Your task to perform on an android device: refresh tabs in the chrome app Image 0: 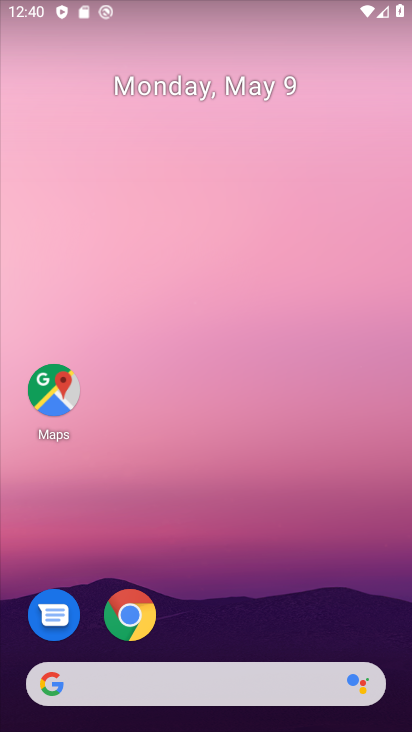
Step 0: click (129, 614)
Your task to perform on an android device: refresh tabs in the chrome app Image 1: 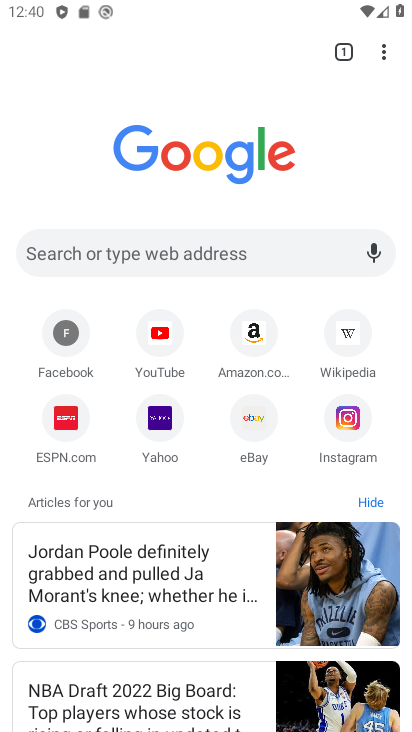
Step 1: click (385, 50)
Your task to perform on an android device: refresh tabs in the chrome app Image 2: 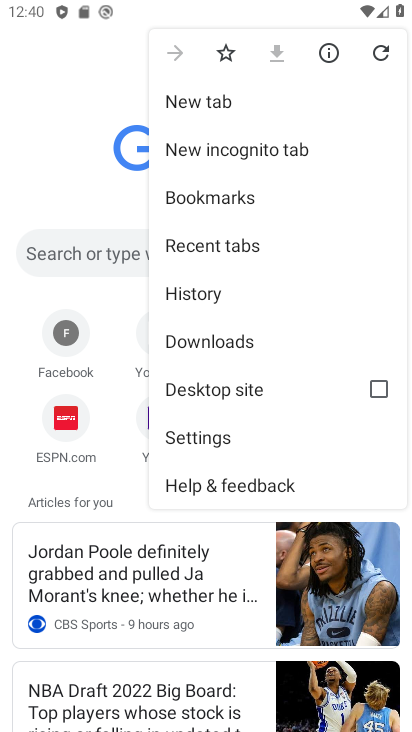
Step 2: click (385, 49)
Your task to perform on an android device: refresh tabs in the chrome app Image 3: 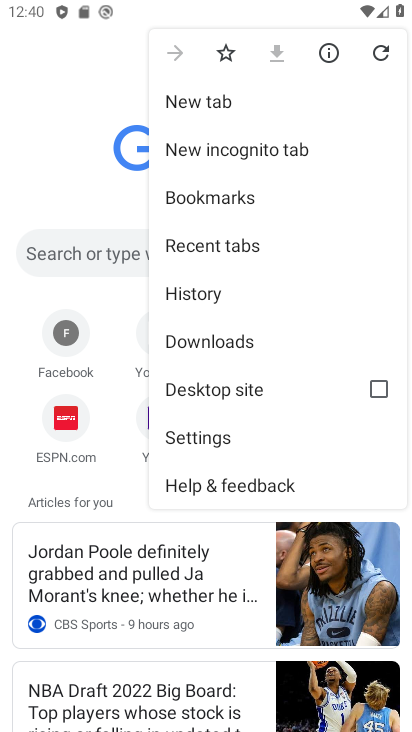
Step 3: click (385, 49)
Your task to perform on an android device: refresh tabs in the chrome app Image 4: 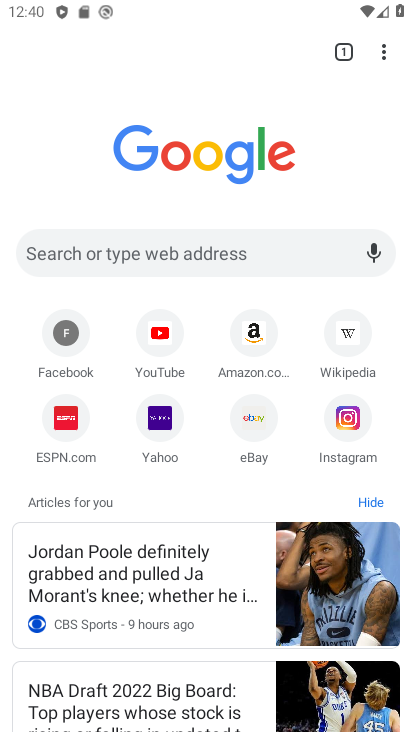
Step 4: task complete